Your task to perform on an android device: turn off notifications in google photos Image 0: 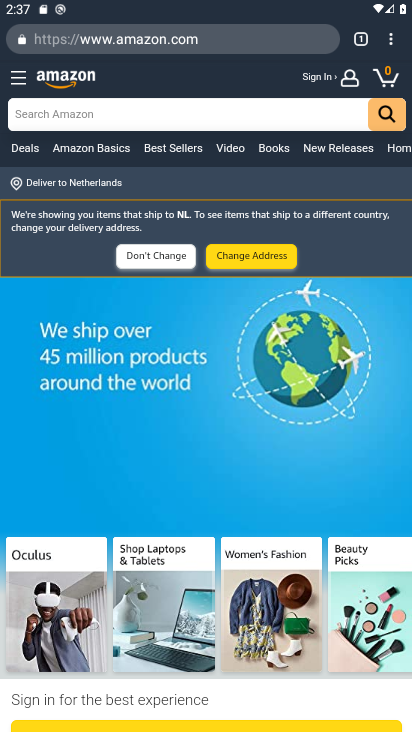
Step 0: press home button
Your task to perform on an android device: turn off notifications in google photos Image 1: 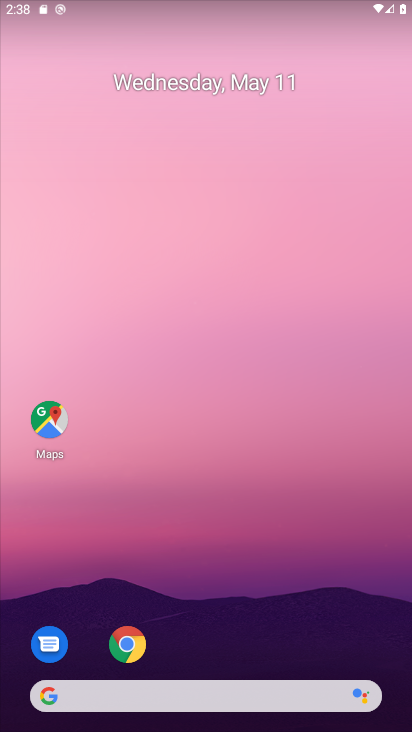
Step 1: drag from (200, 682) to (112, 15)
Your task to perform on an android device: turn off notifications in google photos Image 2: 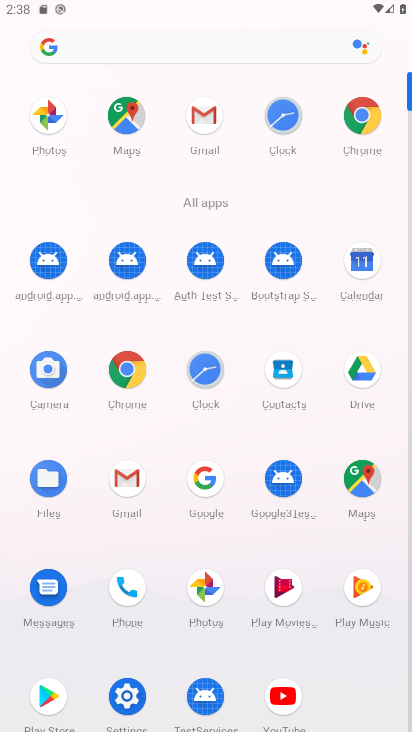
Step 2: click (224, 592)
Your task to perform on an android device: turn off notifications in google photos Image 3: 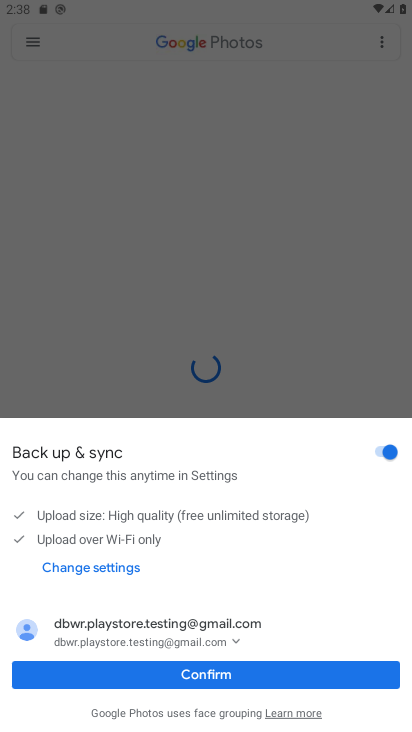
Step 3: click (96, 673)
Your task to perform on an android device: turn off notifications in google photos Image 4: 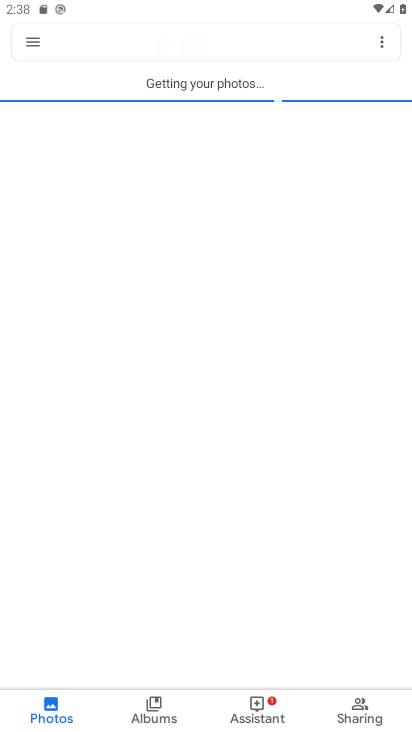
Step 4: click (37, 36)
Your task to perform on an android device: turn off notifications in google photos Image 5: 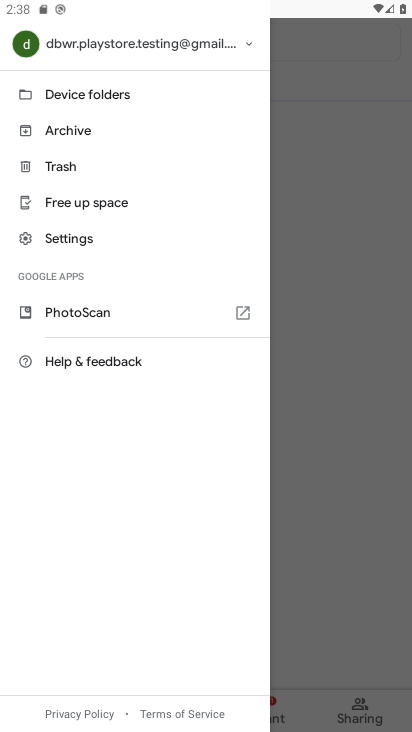
Step 5: click (20, 240)
Your task to perform on an android device: turn off notifications in google photos Image 6: 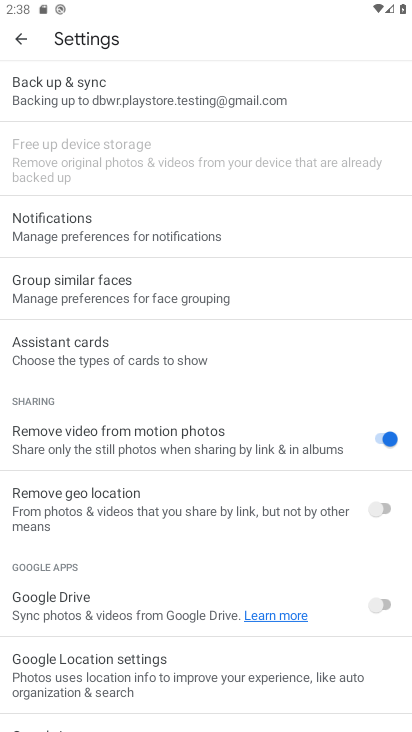
Step 6: click (112, 222)
Your task to perform on an android device: turn off notifications in google photos Image 7: 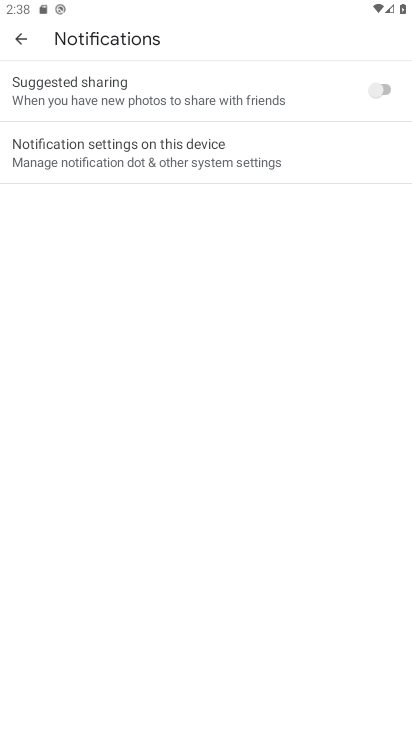
Step 7: click (259, 159)
Your task to perform on an android device: turn off notifications in google photos Image 8: 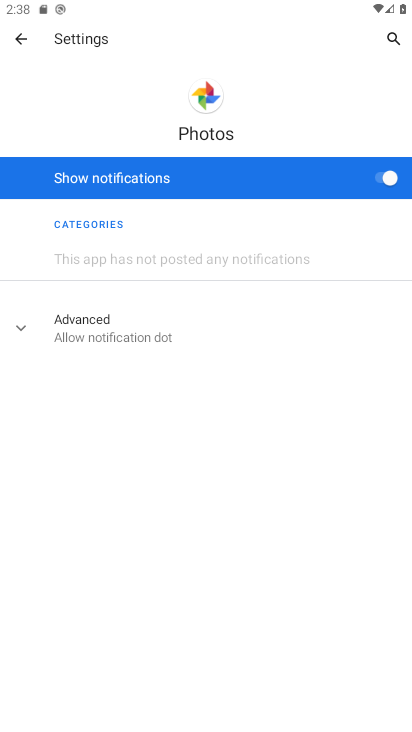
Step 8: click (378, 181)
Your task to perform on an android device: turn off notifications in google photos Image 9: 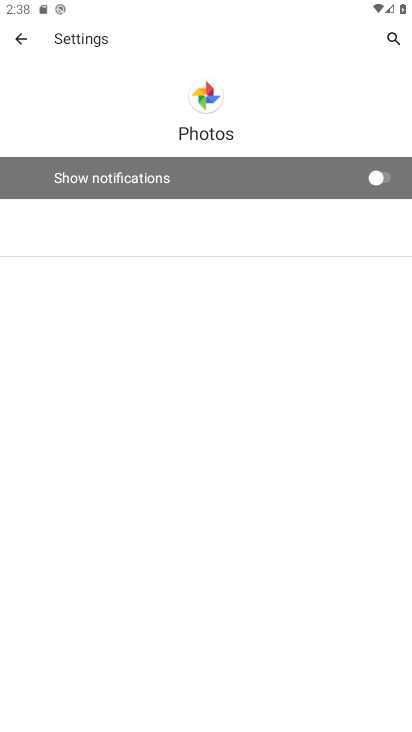
Step 9: task complete